Your task to perform on an android device: empty trash in the gmail app Image 0: 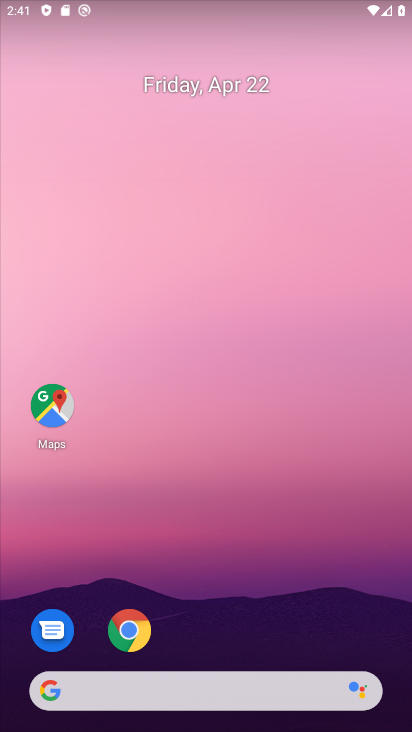
Step 0: drag from (274, 720) to (195, 261)
Your task to perform on an android device: empty trash in the gmail app Image 1: 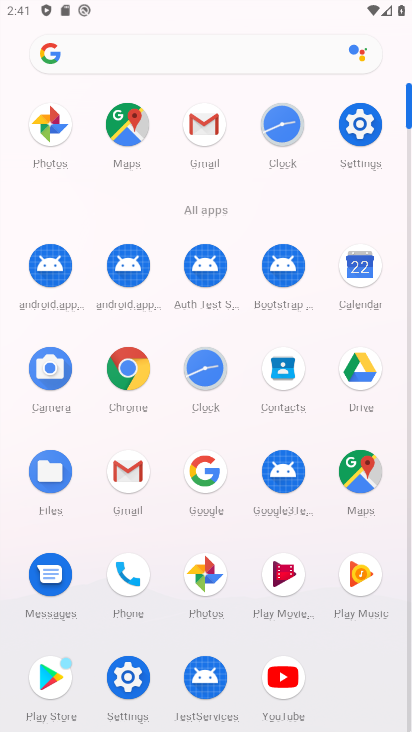
Step 1: click (372, 464)
Your task to perform on an android device: empty trash in the gmail app Image 2: 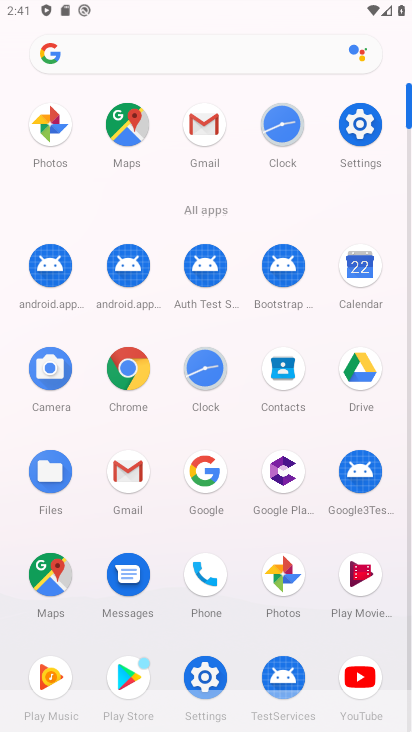
Step 2: drag from (277, 609) to (243, 132)
Your task to perform on an android device: empty trash in the gmail app Image 3: 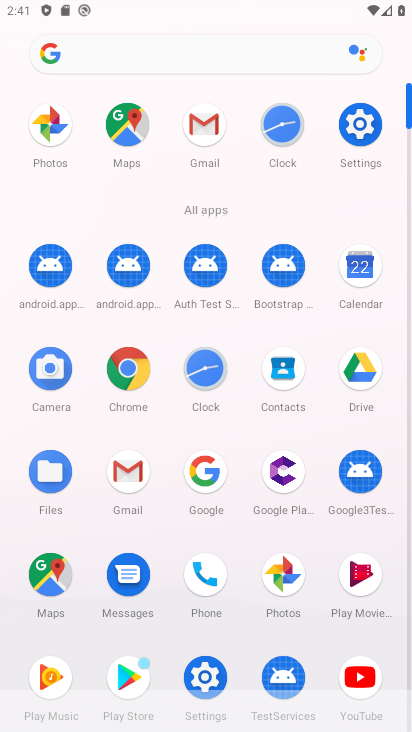
Step 3: drag from (235, 519) to (251, 192)
Your task to perform on an android device: empty trash in the gmail app Image 4: 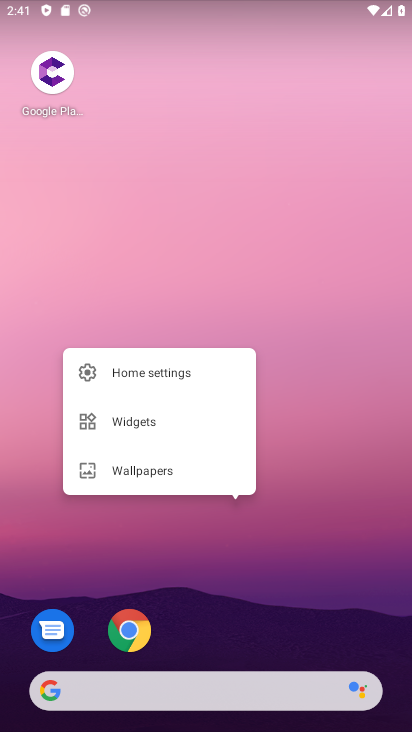
Step 4: click (322, 343)
Your task to perform on an android device: empty trash in the gmail app Image 5: 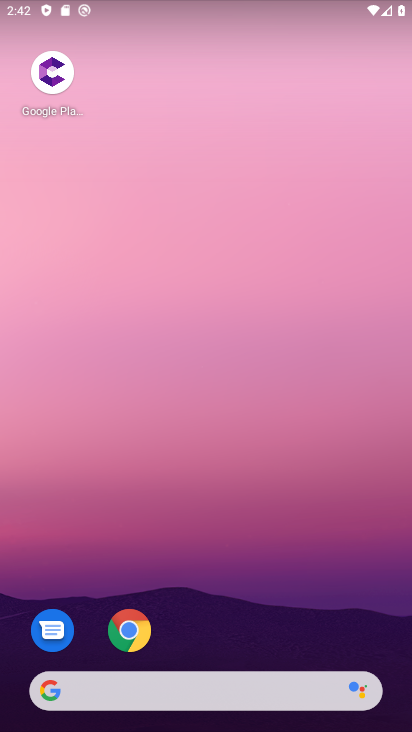
Step 5: click (324, 620)
Your task to perform on an android device: empty trash in the gmail app Image 6: 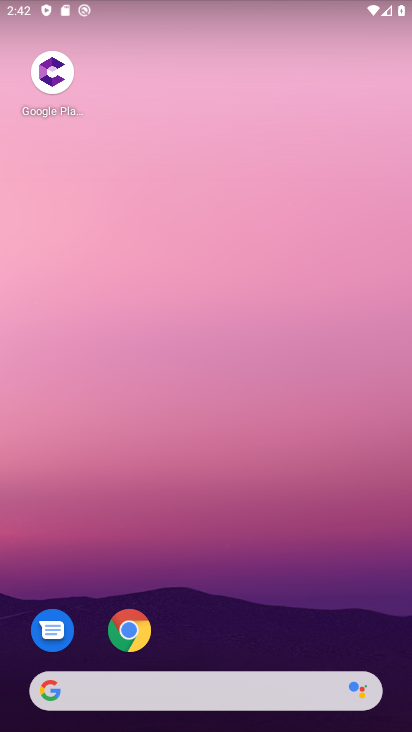
Step 6: click (324, 620)
Your task to perform on an android device: empty trash in the gmail app Image 7: 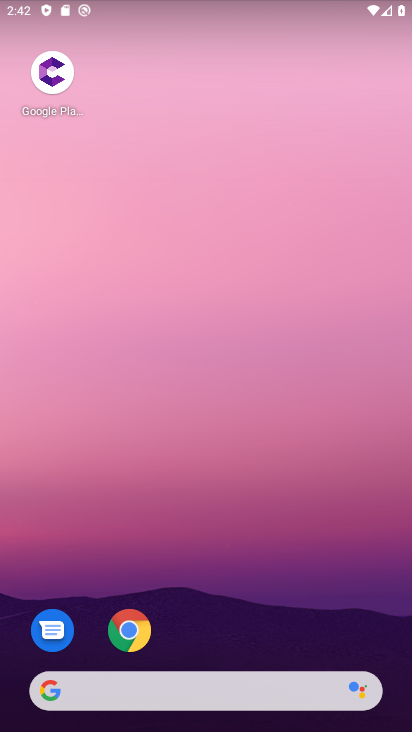
Step 7: click (407, 707)
Your task to perform on an android device: empty trash in the gmail app Image 8: 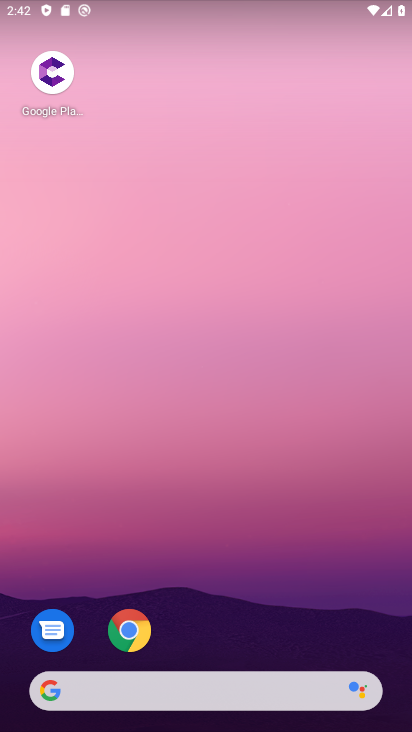
Step 8: click (349, 584)
Your task to perform on an android device: empty trash in the gmail app Image 9: 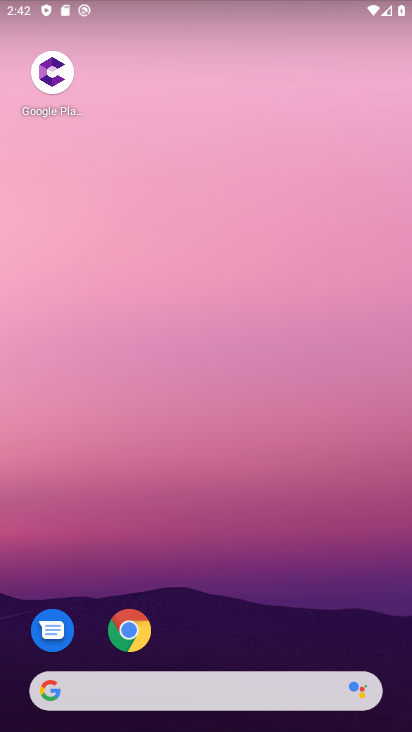
Step 9: drag from (309, 680) to (281, 149)
Your task to perform on an android device: empty trash in the gmail app Image 10: 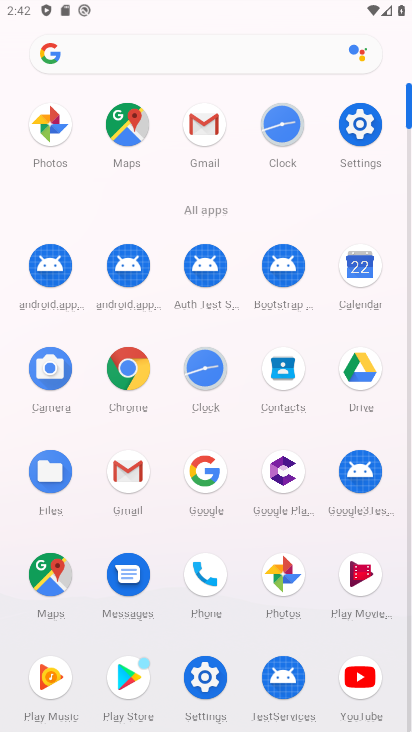
Step 10: click (194, 150)
Your task to perform on an android device: empty trash in the gmail app Image 11: 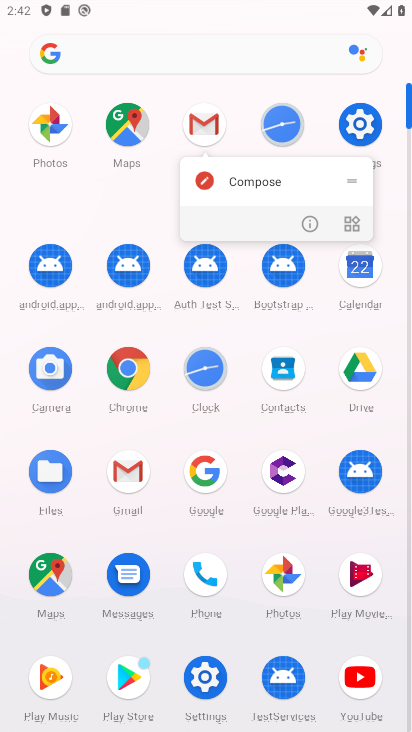
Step 11: click (212, 127)
Your task to perform on an android device: empty trash in the gmail app Image 12: 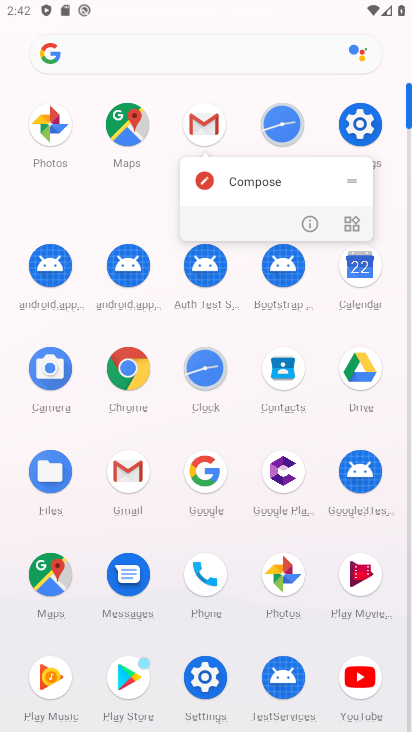
Step 12: click (212, 127)
Your task to perform on an android device: empty trash in the gmail app Image 13: 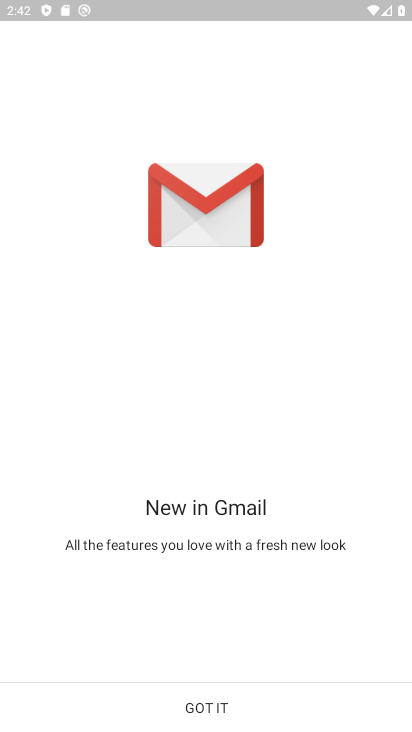
Step 13: click (232, 704)
Your task to perform on an android device: empty trash in the gmail app Image 14: 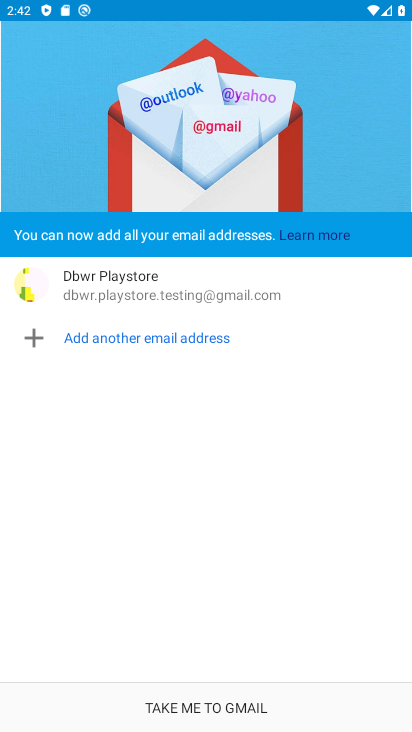
Step 14: click (187, 698)
Your task to perform on an android device: empty trash in the gmail app Image 15: 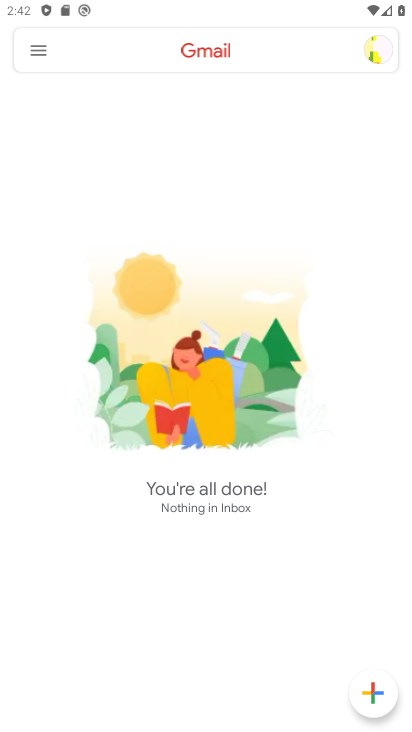
Step 15: click (29, 54)
Your task to perform on an android device: empty trash in the gmail app Image 16: 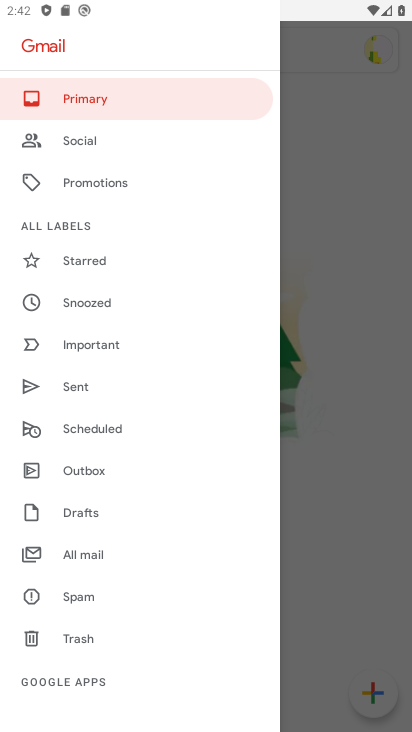
Step 16: click (93, 640)
Your task to perform on an android device: empty trash in the gmail app Image 17: 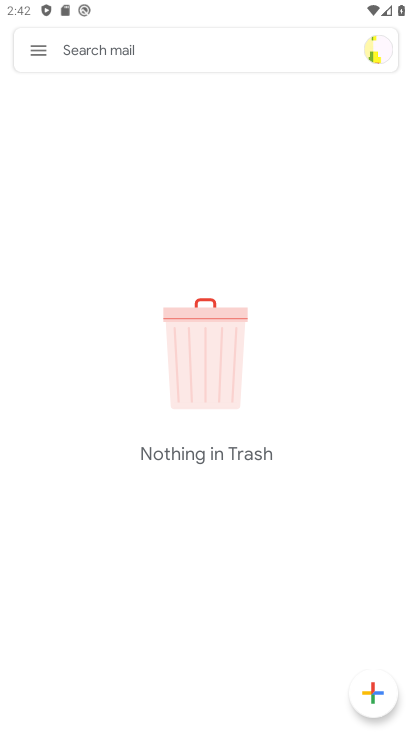
Step 17: task complete